Your task to perform on an android device: Open Amazon Image 0: 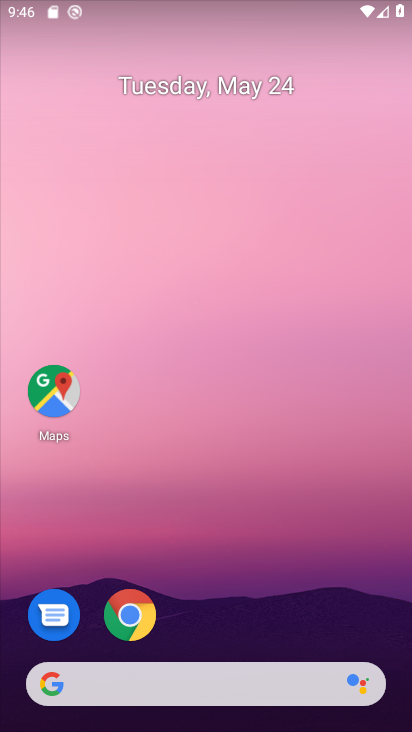
Step 0: drag from (385, 627) to (377, 229)
Your task to perform on an android device: Open Amazon Image 1: 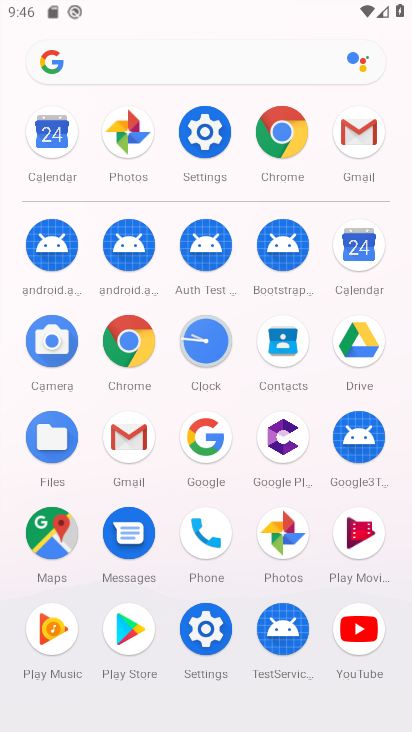
Step 1: click (138, 353)
Your task to perform on an android device: Open Amazon Image 2: 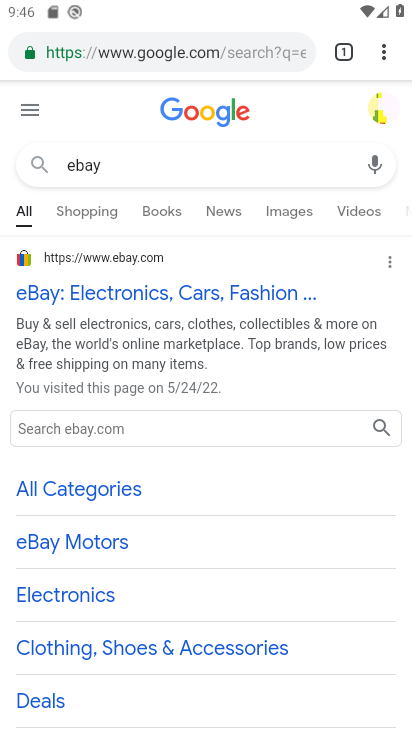
Step 2: press back button
Your task to perform on an android device: Open Amazon Image 3: 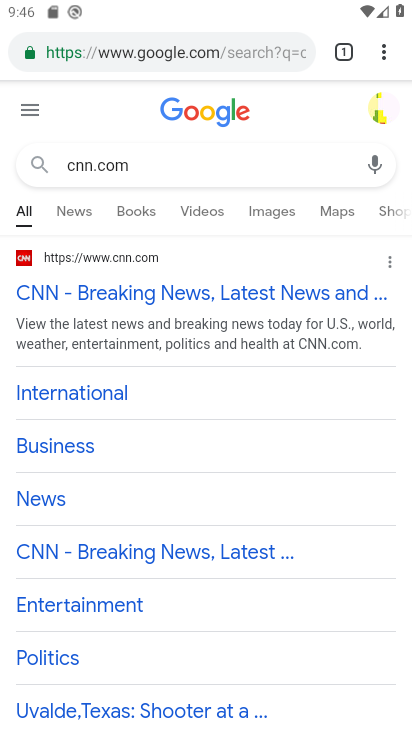
Step 3: press back button
Your task to perform on an android device: Open Amazon Image 4: 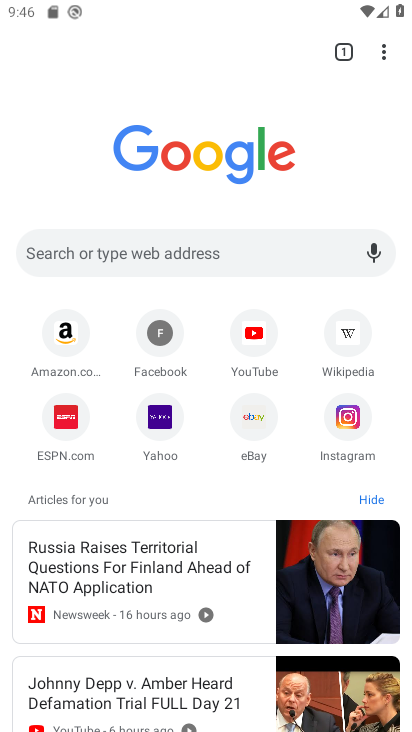
Step 4: click (64, 339)
Your task to perform on an android device: Open Amazon Image 5: 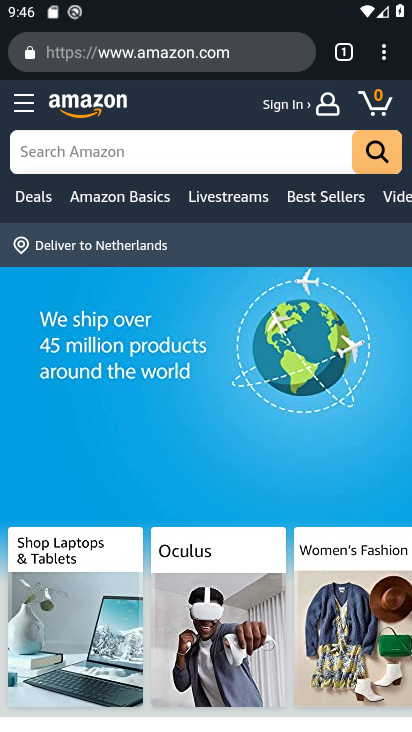
Step 5: task complete